Your task to perform on an android device: Do I have any events this weekend? Image 0: 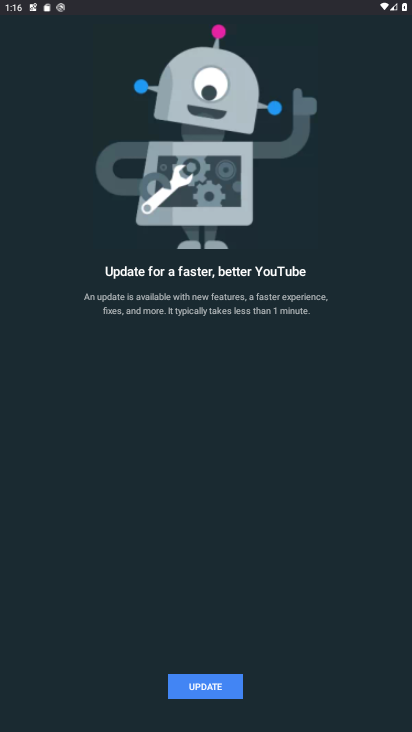
Step 0: press home button
Your task to perform on an android device: Do I have any events this weekend? Image 1: 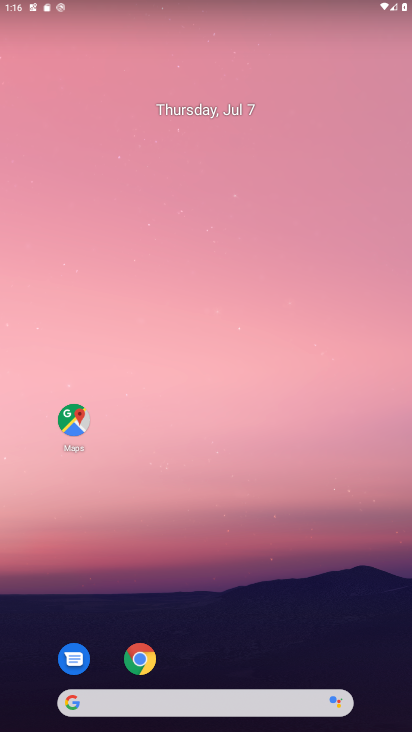
Step 1: drag from (182, 686) to (263, 179)
Your task to perform on an android device: Do I have any events this weekend? Image 2: 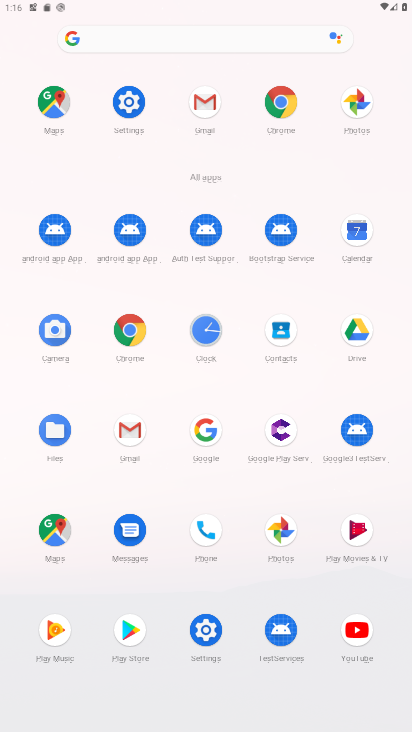
Step 2: click (355, 232)
Your task to perform on an android device: Do I have any events this weekend? Image 3: 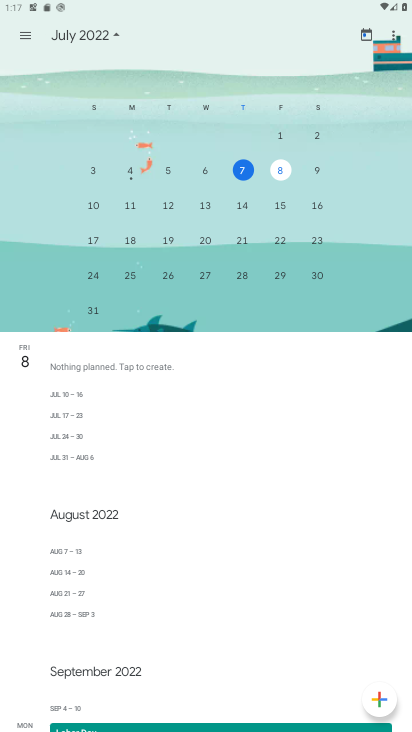
Step 3: click (319, 165)
Your task to perform on an android device: Do I have any events this weekend? Image 4: 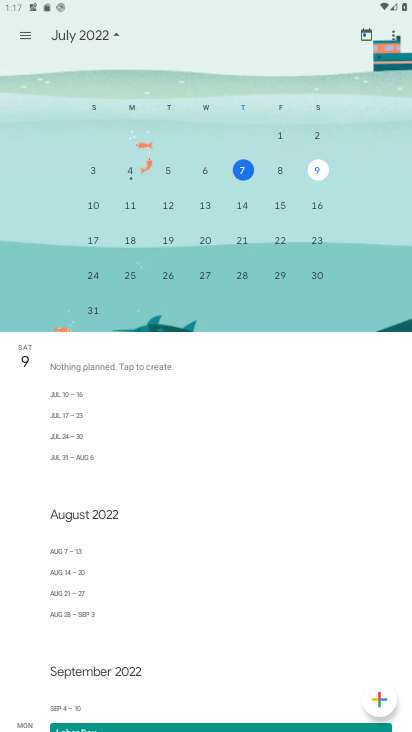
Step 4: task complete